Your task to perform on an android device: turn off picture-in-picture Image 0: 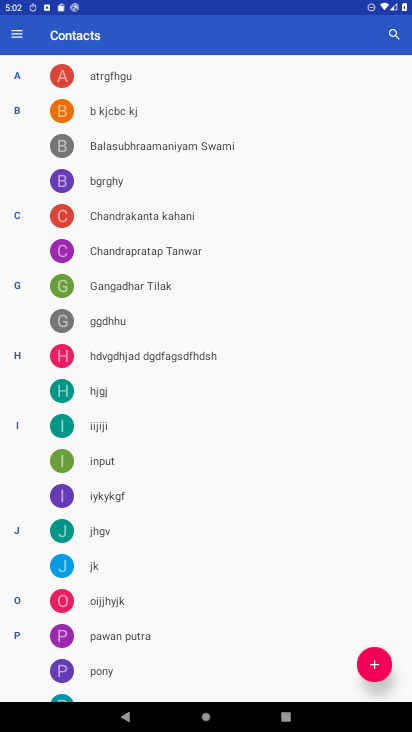
Step 0: press home button
Your task to perform on an android device: turn off picture-in-picture Image 1: 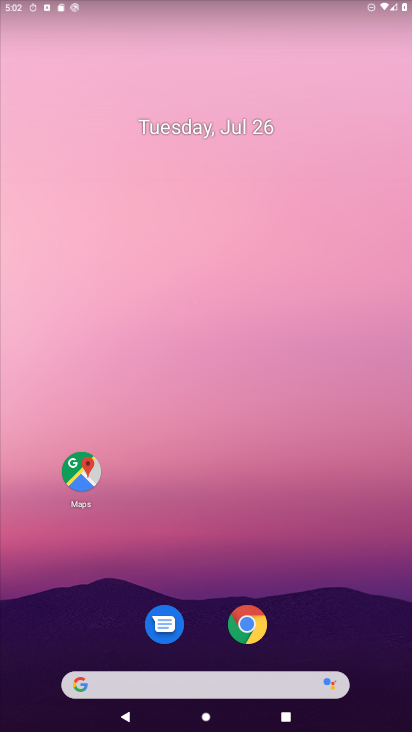
Step 1: drag from (304, 677) to (253, 60)
Your task to perform on an android device: turn off picture-in-picture Image 2: 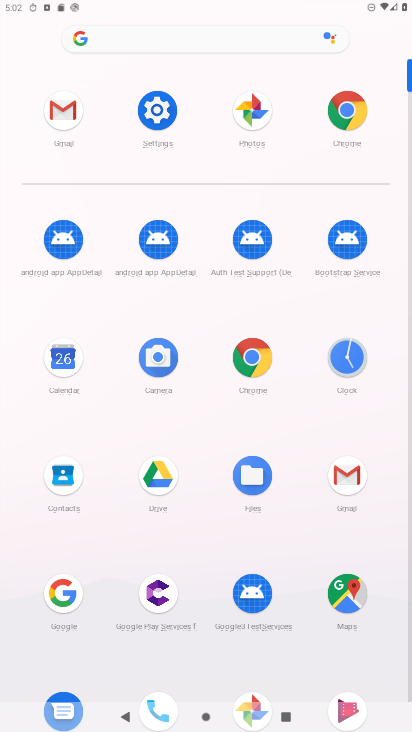
Step 2: click (149, 105)
Your task to perform on an android device: turn off picture-in-picture Image 3: 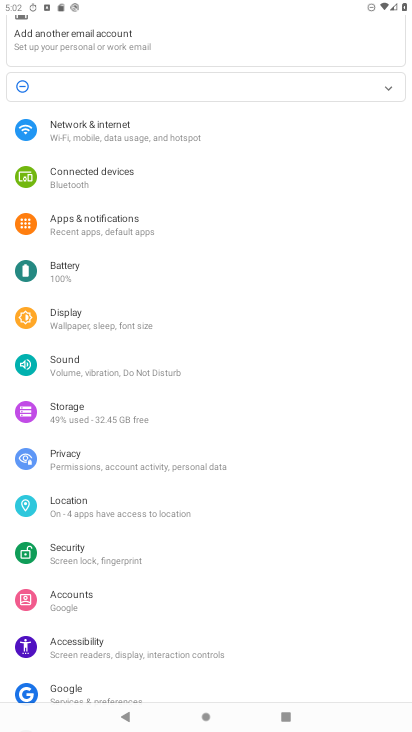
Step 3: drag from (238, 627) to (224, 192)
Your task to perform on an android device: turn off picture-in-picture Image 4: 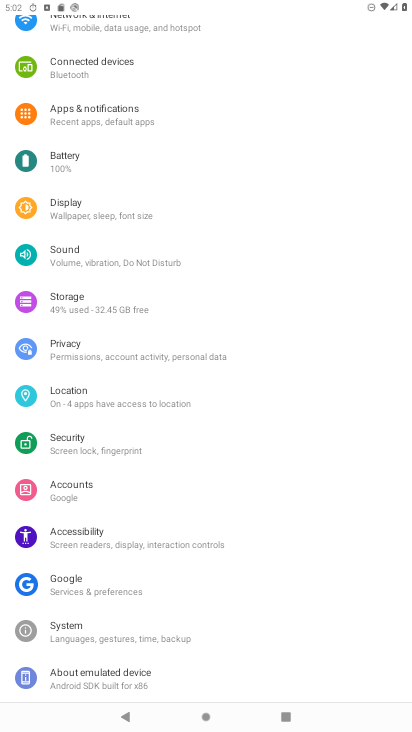
Step 4: click (117, 122)
Your task to perform on an android device: turn off picture-in-picture Image 5: 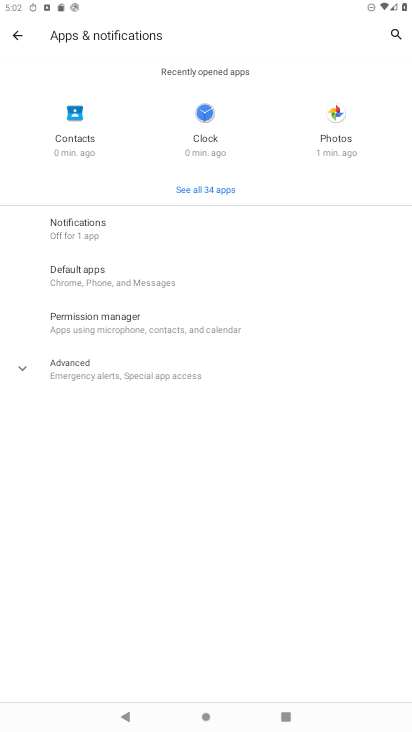
Step 5: click (88, 369)
Your task to perform on an android device: turn off picture-in-picture Image 6: 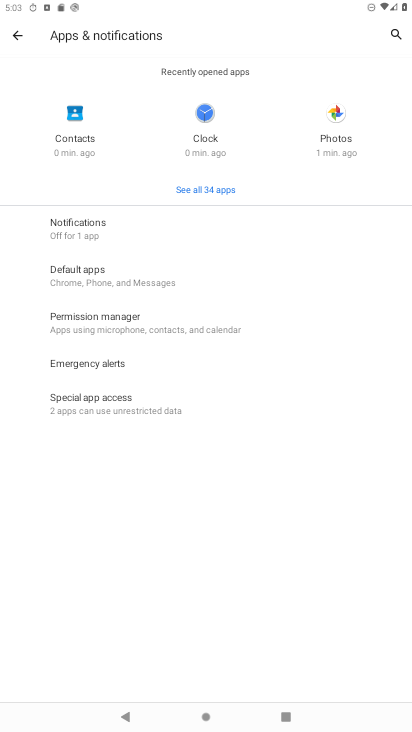
Step 6: click (83, 405)
Your task to perform on an android device: turn off picture-in-picture Image 7: 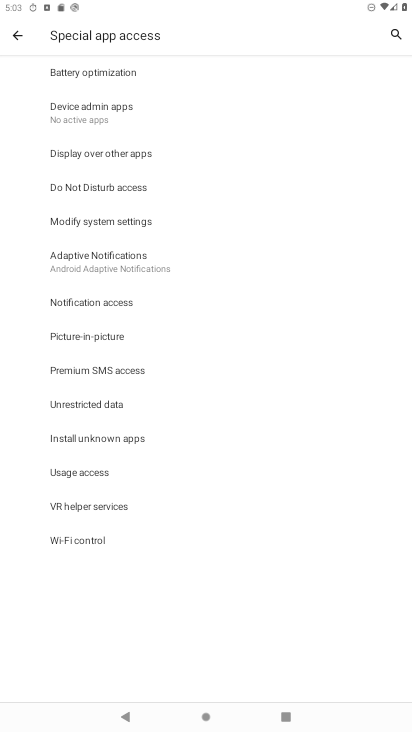
Step 7: click (83, 328)
Your task to perform on an android device: turn off picture-in-picture Image 8: 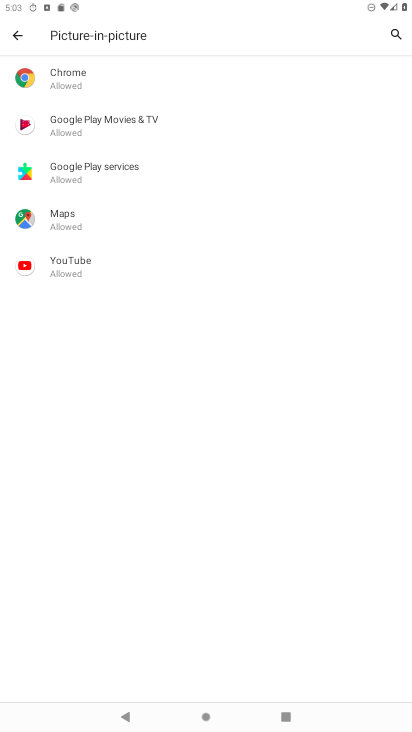
Step 8: click (98, 86)
Your task to perform on an android device: turn off picture-in-picture Image 9: 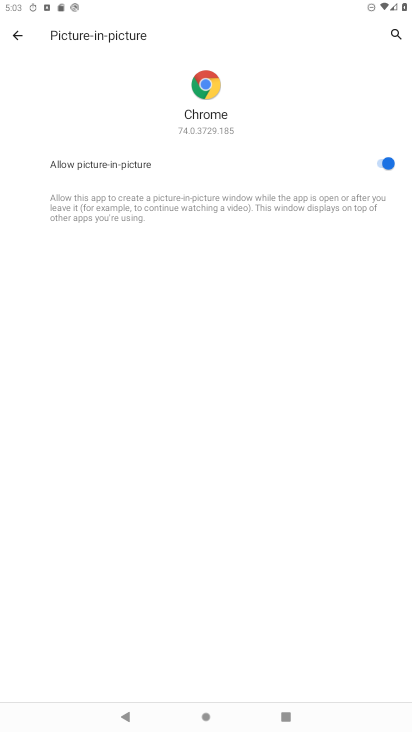
Step 9: click (390, 160)
Your task to perform on an android device: turn off picture-in-picture Image 10: 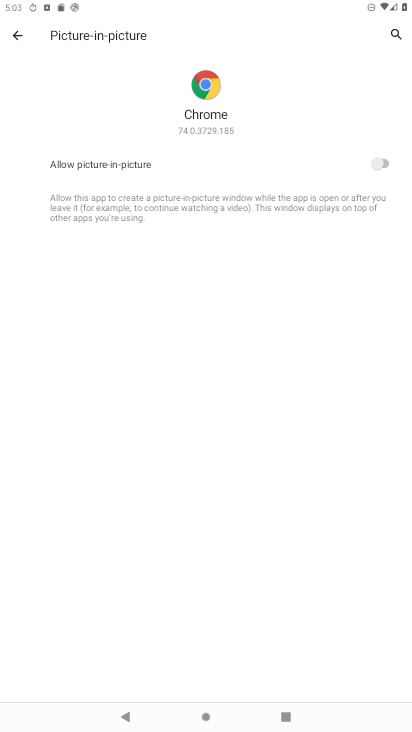
Step 10: press back button
Your task to perform on an android device: turn off picture-in-picture Image 11: 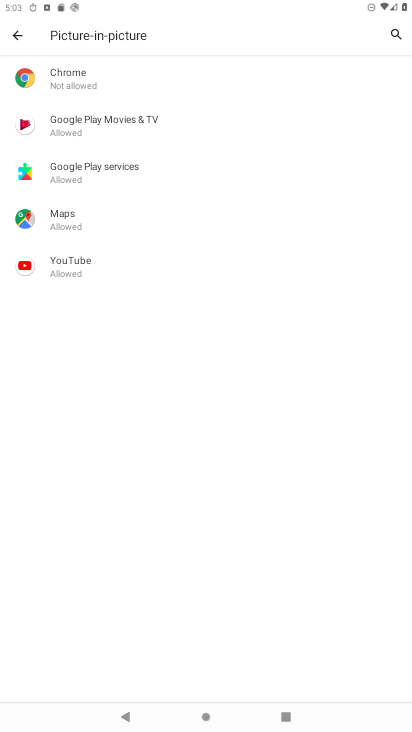
Step 11: click (91, 122)
Your task to perform on an android device: turn off picture-in-picture Image 12: 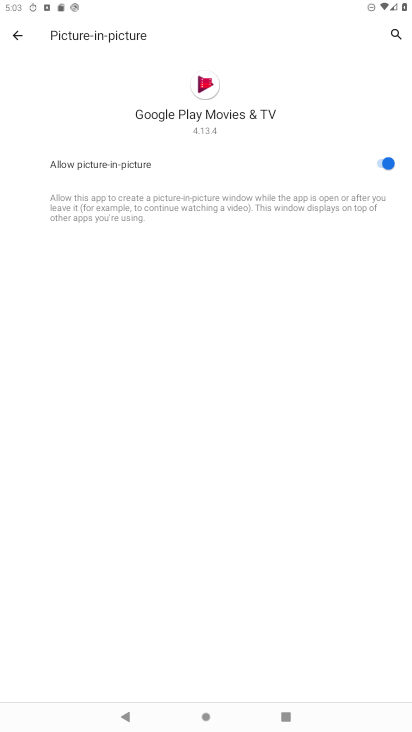
Step 12: click (383, 161)
Your task to perform on an android device: turn off picture-in-picture Image 13: 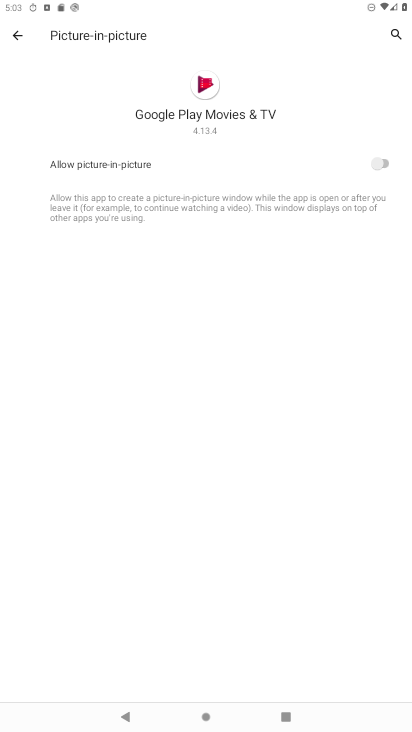
Step 13: press back button
Your task to perform on an android device: turn off picture-in-picture Image 14: 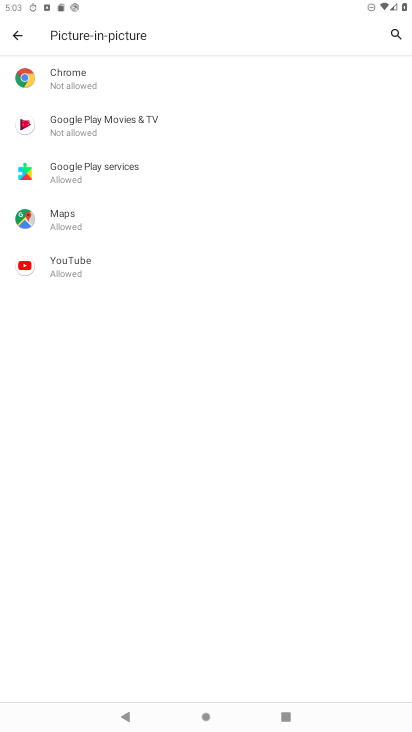
Step 14: click (370, 176)
Your task to perform on an android device: turn off picture-in-picture Image 15: 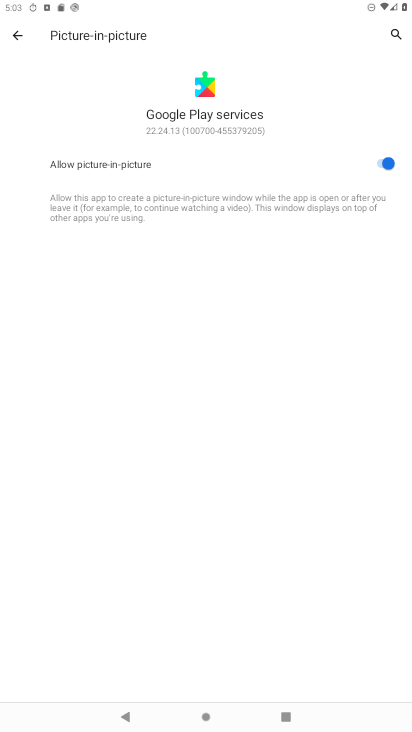
Step 15: click (391, 159)
Your task to perform on an android device: turn off picture-in-picture Image 16: 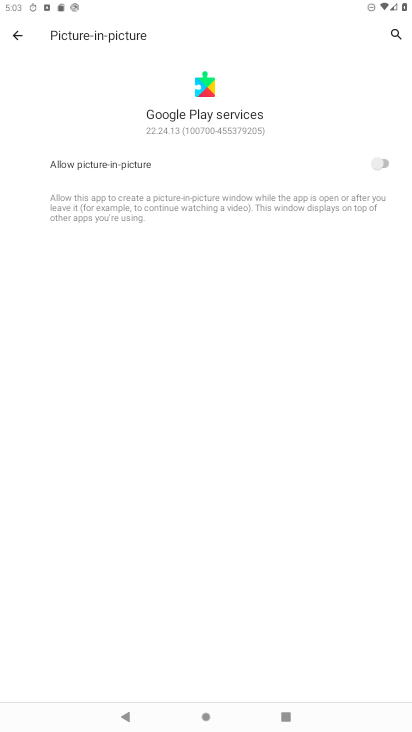
Step 16: press back button
Your task to perform on an android device: turn off picture-in-picture Image 17: 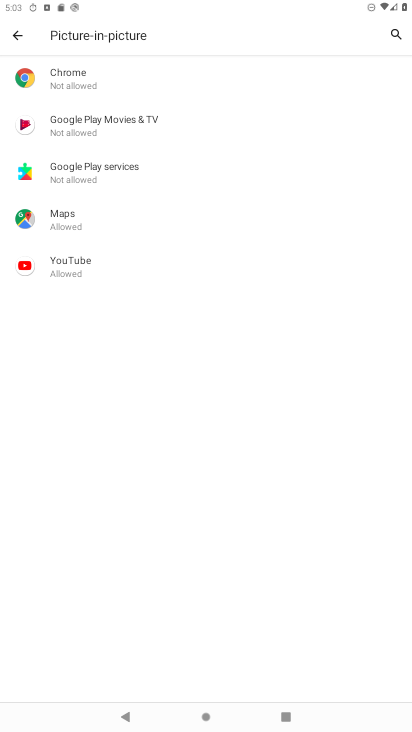
Step 17: click (88, 223)
Your task to perform on an android device: turn off picture-in-picture Image 18: 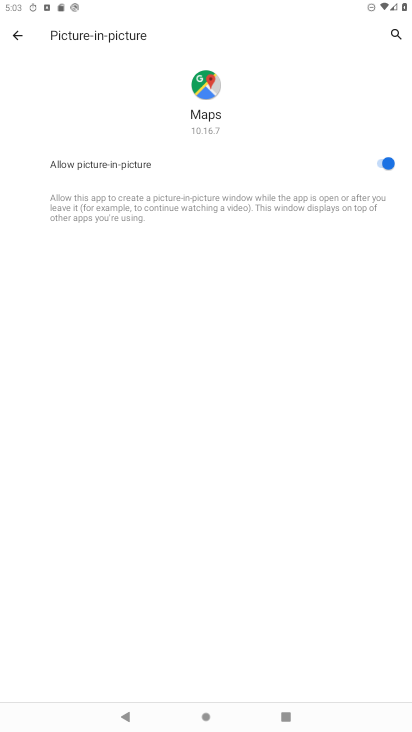
Step 18: click (385, 165)
Your task to perform on an android device: turn off picture-in-picture Image 19: 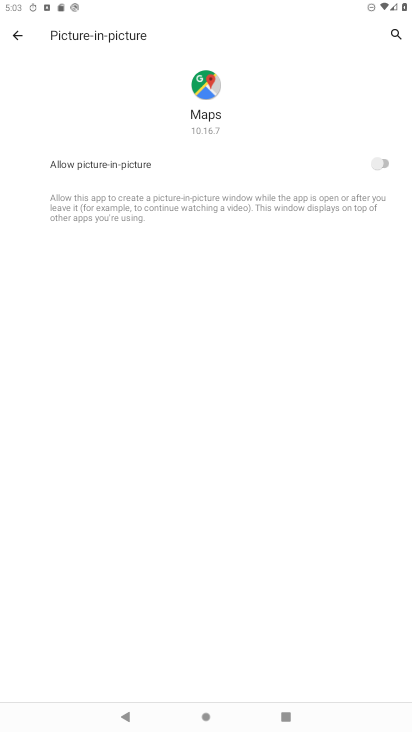
Step 19: press back button
Your task to perform on an android device: turn off picture-in-picture Image 20: 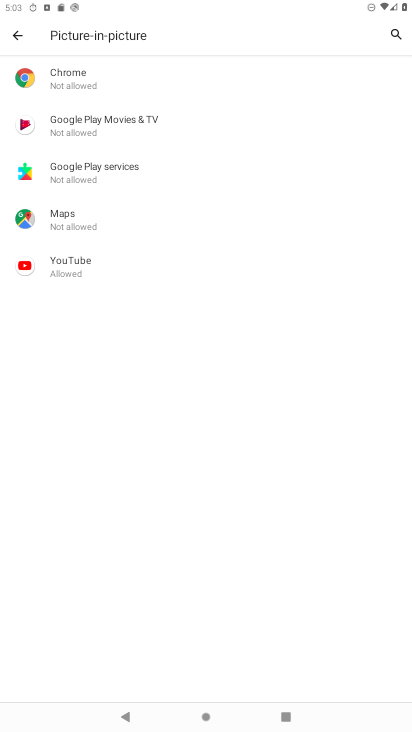
Step 20: click (96, 264)
Your task to perform on an android device: turn off picture-in-picture Image 21: 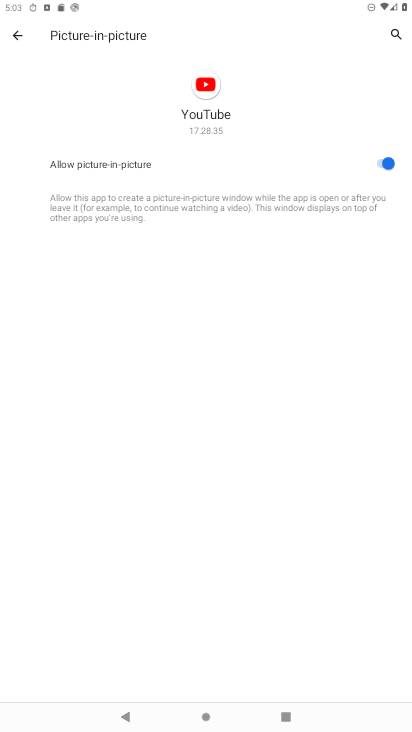
Step 21: click (383, 154)
Your task to perform on an android device: turn off picture-in-picture Image 22: 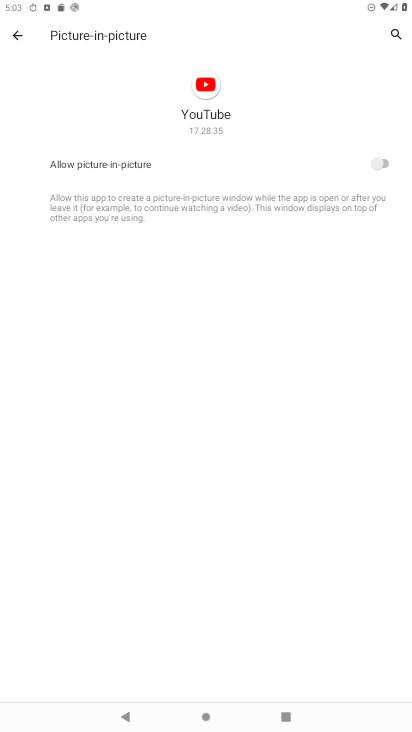
Step 22: task complete